Your task to perform on an android device: turn on sleep mode Image 0: 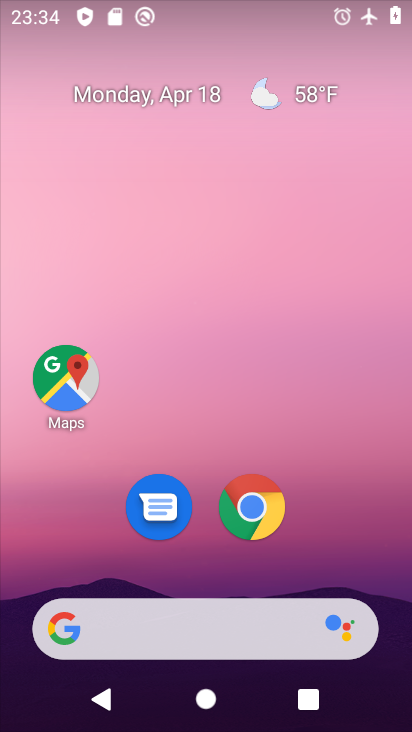
Step 0: drag from (196, 6) to (290, 705)
Your task to perform on an android device: turn on sleep mode Image 1: 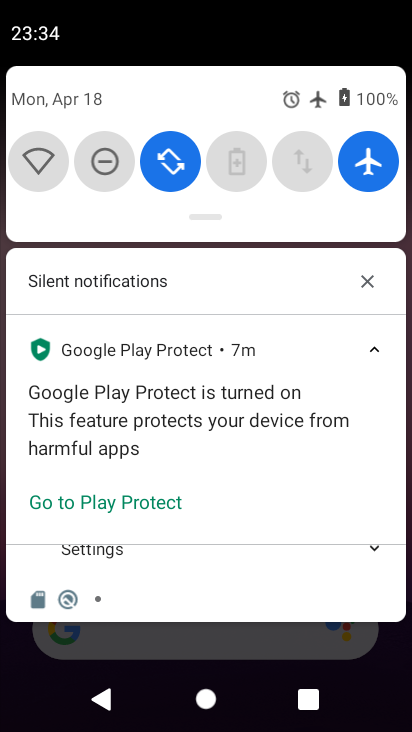
Step 1: drag from (181, 96) to (236, 605)
Your task to perform on an android device: turn on sleep mode Image 2: 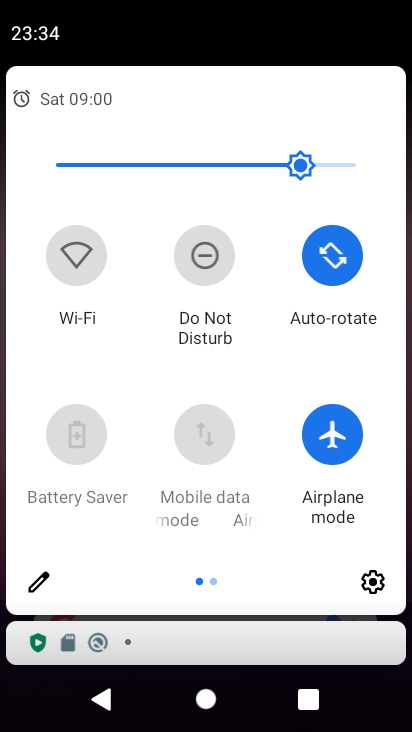
Step 2: click (368, 583)
Your task to perform on an android device: turn on sleep mode Image 3: 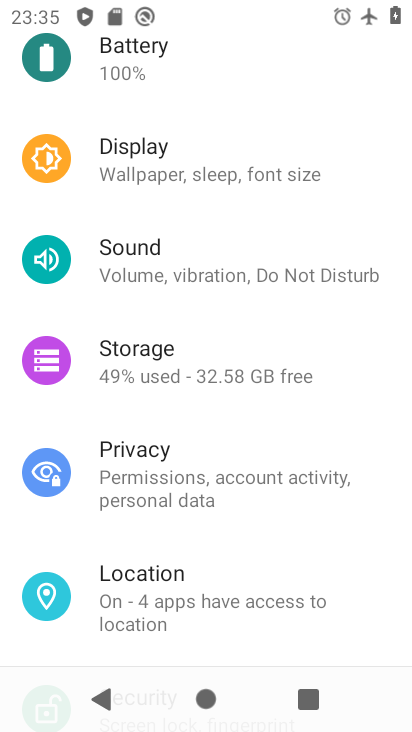
Step 3: task complete